Your task to perform on an android device: uninstall "eBay: The shopping marketplace" Image 0: 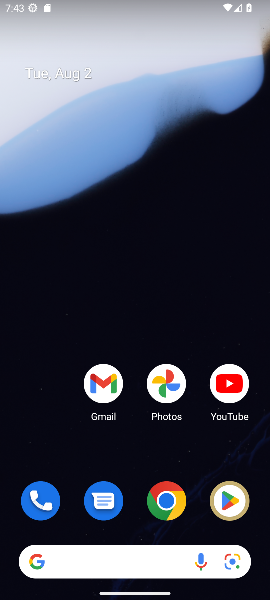
Step 0: drag from (133, 515) to (184, 93)
Your task to perform on an android device: uninstall "eBay: The shopping marketplace" Image 1: 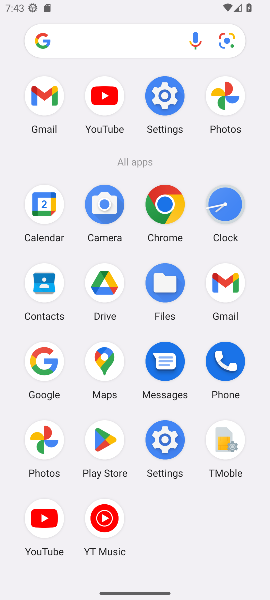
Step 1: click (99, 445)
Your task to perform on an android device: uninstall "eBay: The shopping marketplace" Image 2: 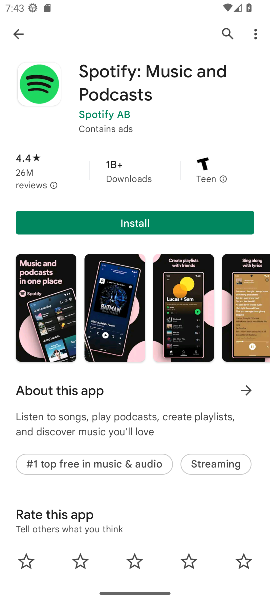
Step 2: drag from (191, 107) to (181, 547)
Your task to perform on an android device: uninstall "eBay: The shopping marketplace" Image 3: 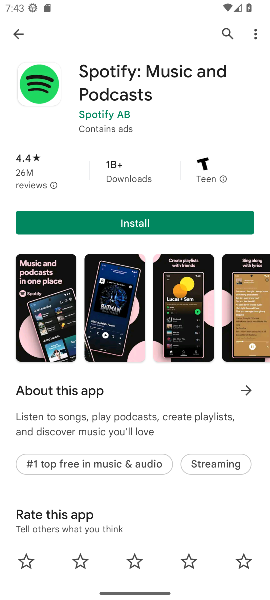
Step 3: drag from (154, 172) to (165, 556)
Your task to perform on an android device: uninstall "eBay: The shopping marketplace" Image 4: 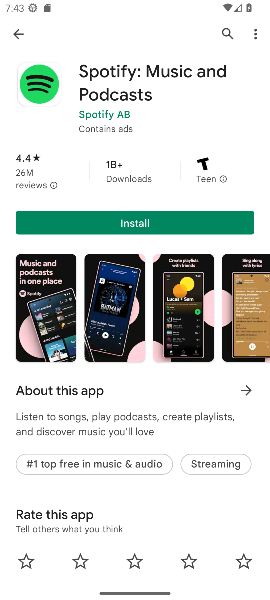
Step 4: click (224, 29)
Your task to perform on an android device: uninstall "eBay: The shopping marketplace" Image 5: 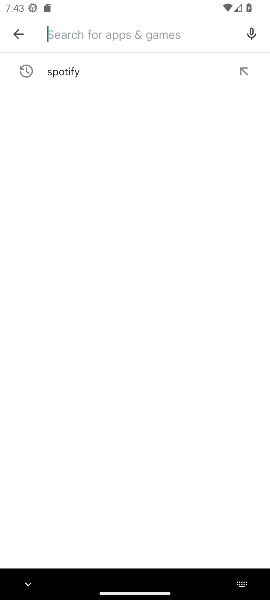
Step 5: type "eBay: The shopping marketplace"
Your task to perform on an android device: uninstall "eBay: The shopping marketplace" Image 6: 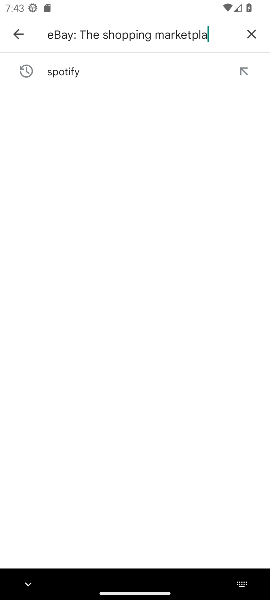
Step 6: type ""
Your task to perform on an android device: uninstall "eBay: The shopping marketplace" Image 7: 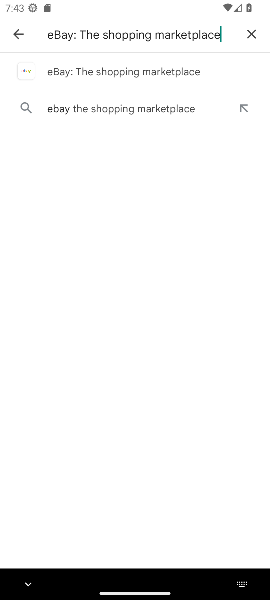
Step 7: click (107, 71)
Your task to perform on an android device: uninstall "eBay: The shopping marketplace" Image 8: 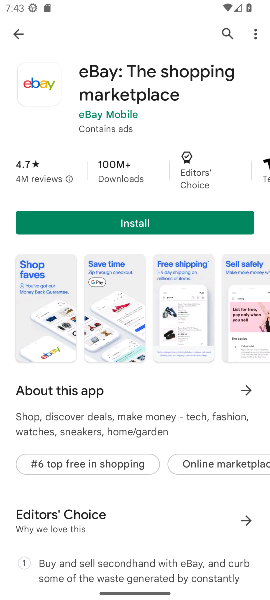
Step 8: task complete